Your task to perform on an android device: What's the weather like in Delhi? Image 0: 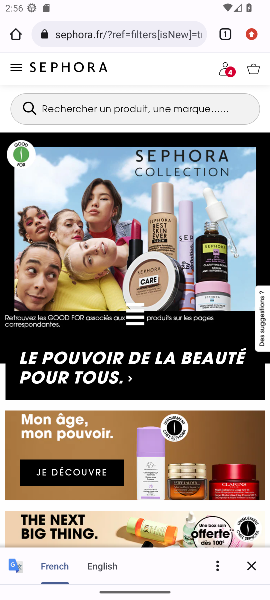
Step 0: drag from (107, 378) to (129, 193)
Your task to perform on an android device: What's the weather like in Delhi? Image 1: 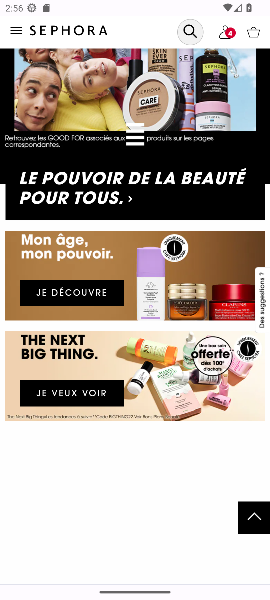
Step 1: press home button
Your task to perform on an android device: What's the weather like in Delhi? Image 2: 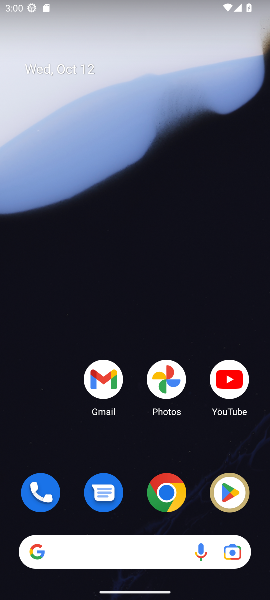
Step 2: click (161, 493)
Your task to perform on an android device: What's the weather like in Delhi? Image 3: 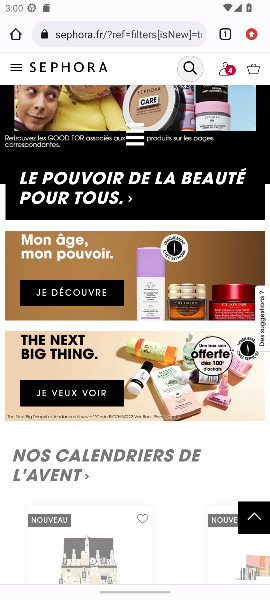
Step 3: click (108, 31)
Your task to perform on an android device: What's the weather like in Delhi? Image 4: 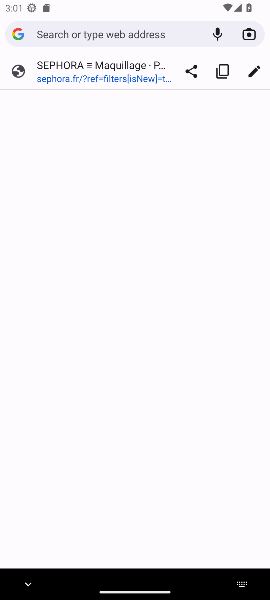
Step 4: type "weather in delhi"
Your task to perform on an android device: What's the weather like in Delhi? Image 5: 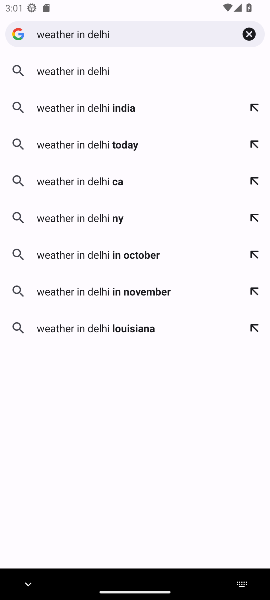
Step 5: click (38, 75)
Your task to perform on an android device: What's the weather like in Delhi? Image 6: 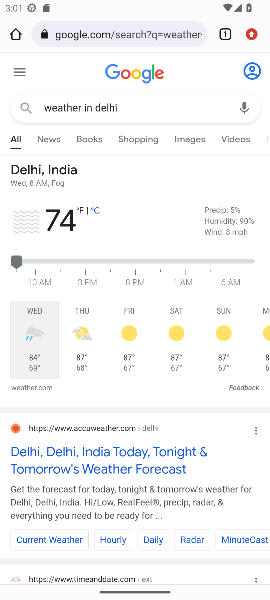
Step 6: task complete